Your task to perform on an android device: Show the shopping cart on newegg.com. Search for energizer triple a on newegg.com, select the first entry, add it to the cart, then select checkout. Image 0: 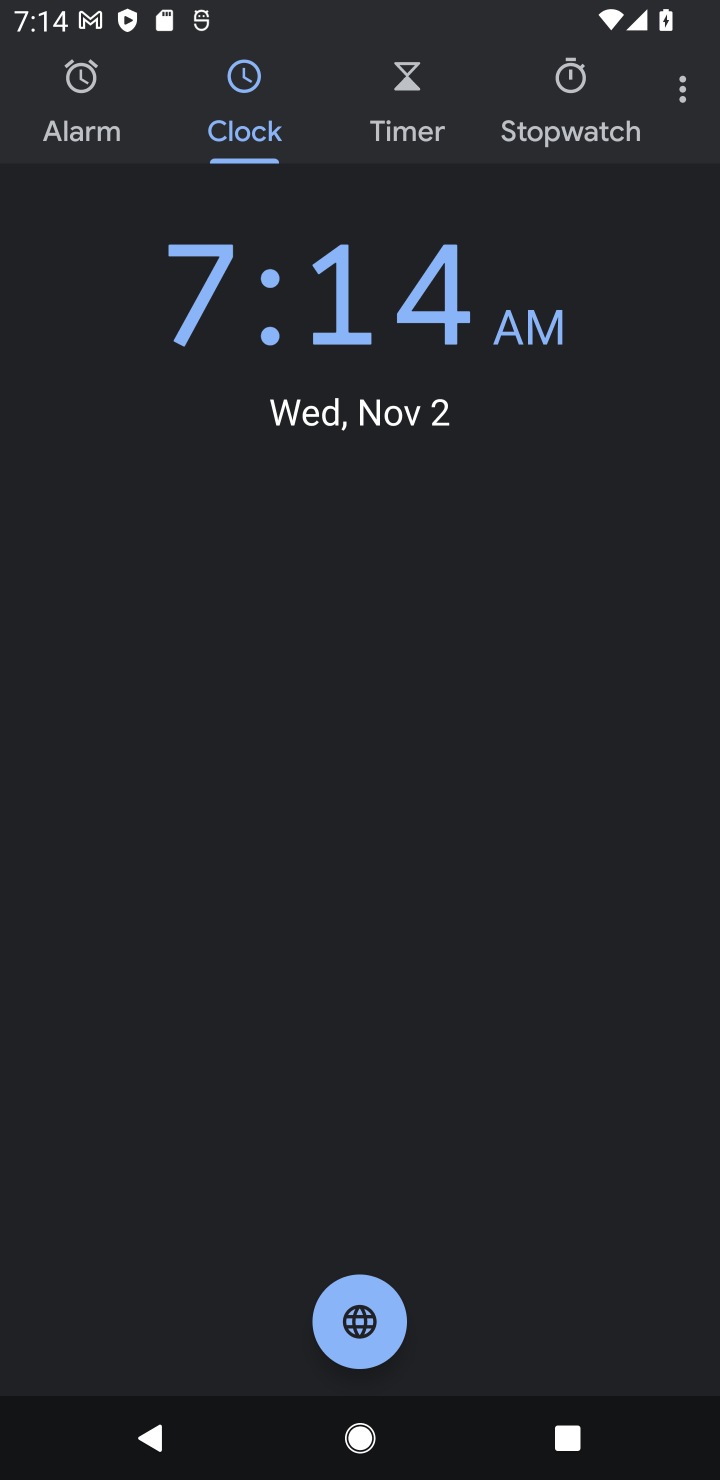
Step 0: press home button
Your task to perform on an android device: Show the shopping cart on newegg.com. Search for energizer triple a on newegg.com, select the first entry, add it to the cart, then select checkout. Image 1: 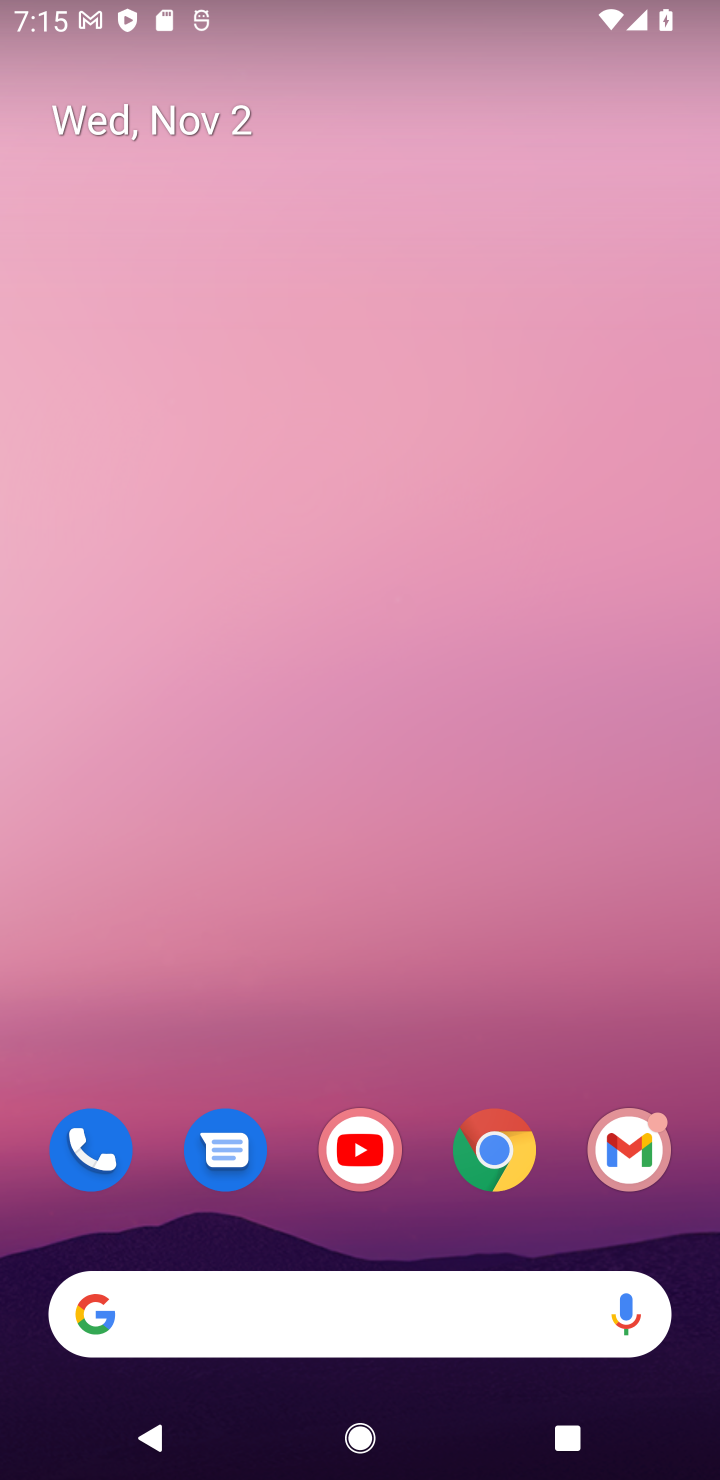
Step 1: click (517, 1176)
Your task to perform on an android device: Show the shopping cart on newegg.com. Search for energizer triple a on newegg.com, select the first entry, add it to the cart, then select checkout. Image 2: 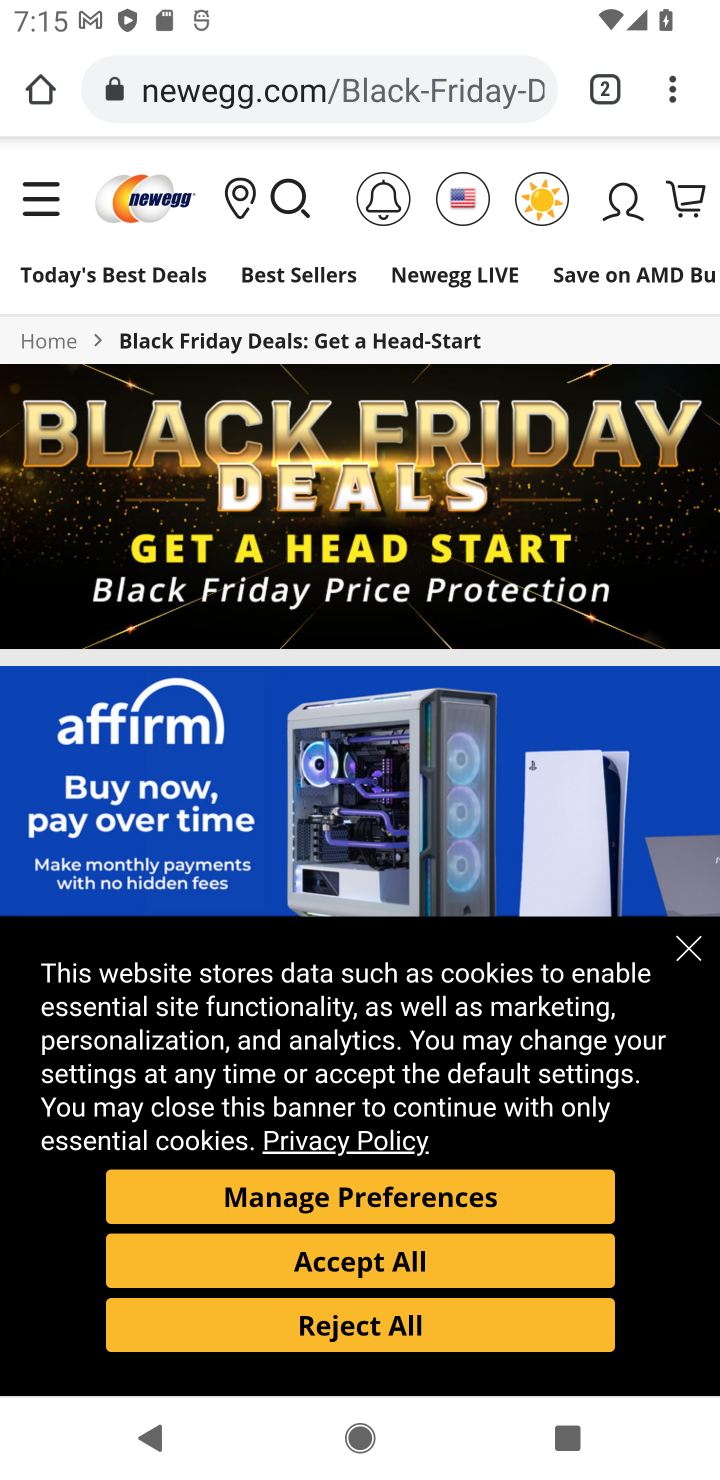
Step 2: click (285, 198)
Your task to perform on an android device: Show the shopping cart on newegg.com. Search for energizer triple a on newegg.com, select the first entry, add it to the cart, then select checkout. Image 3: 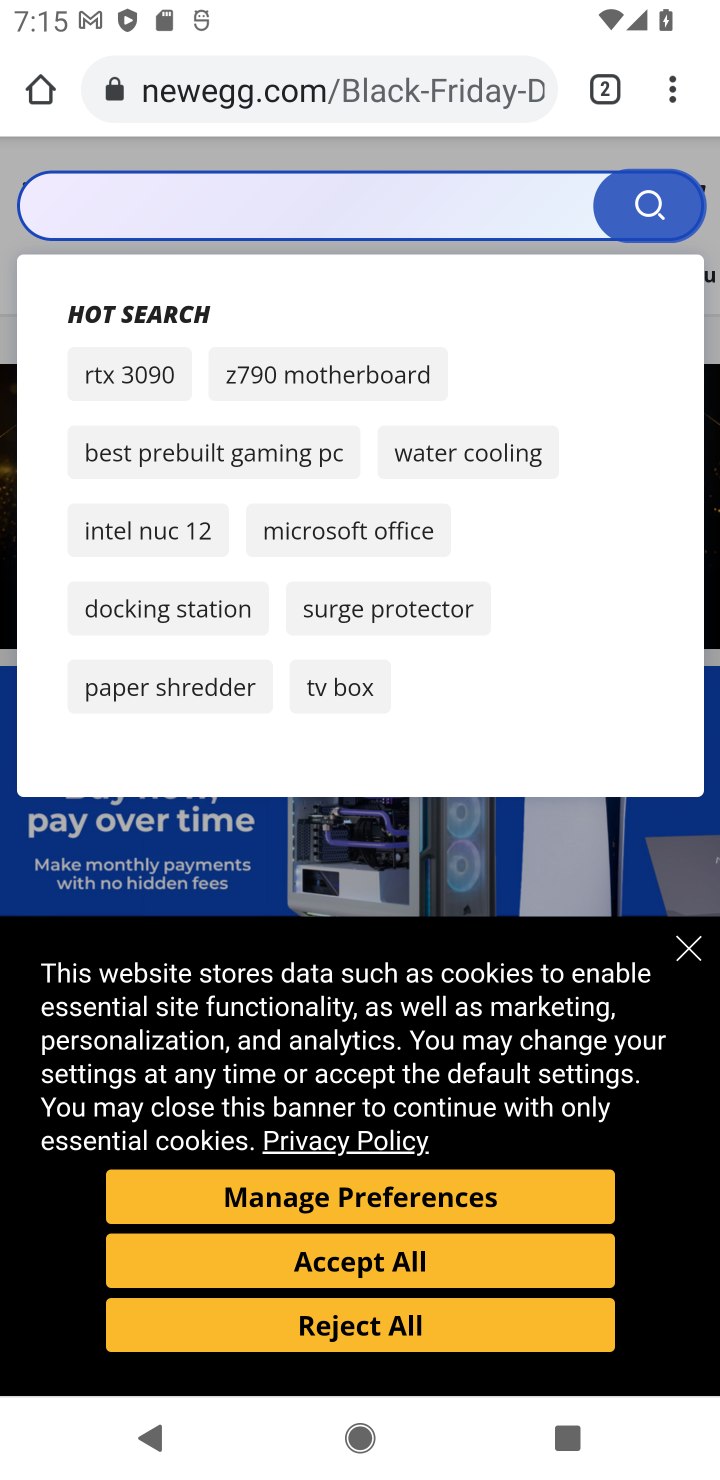
Step 3: type "energizer triple a"
Your task to perform on an android device: Show the shopping cart on newegg.com. Search for energizer triple a on newegg.com, select the first entry, add it to the cart, then select checkout. Image 4: 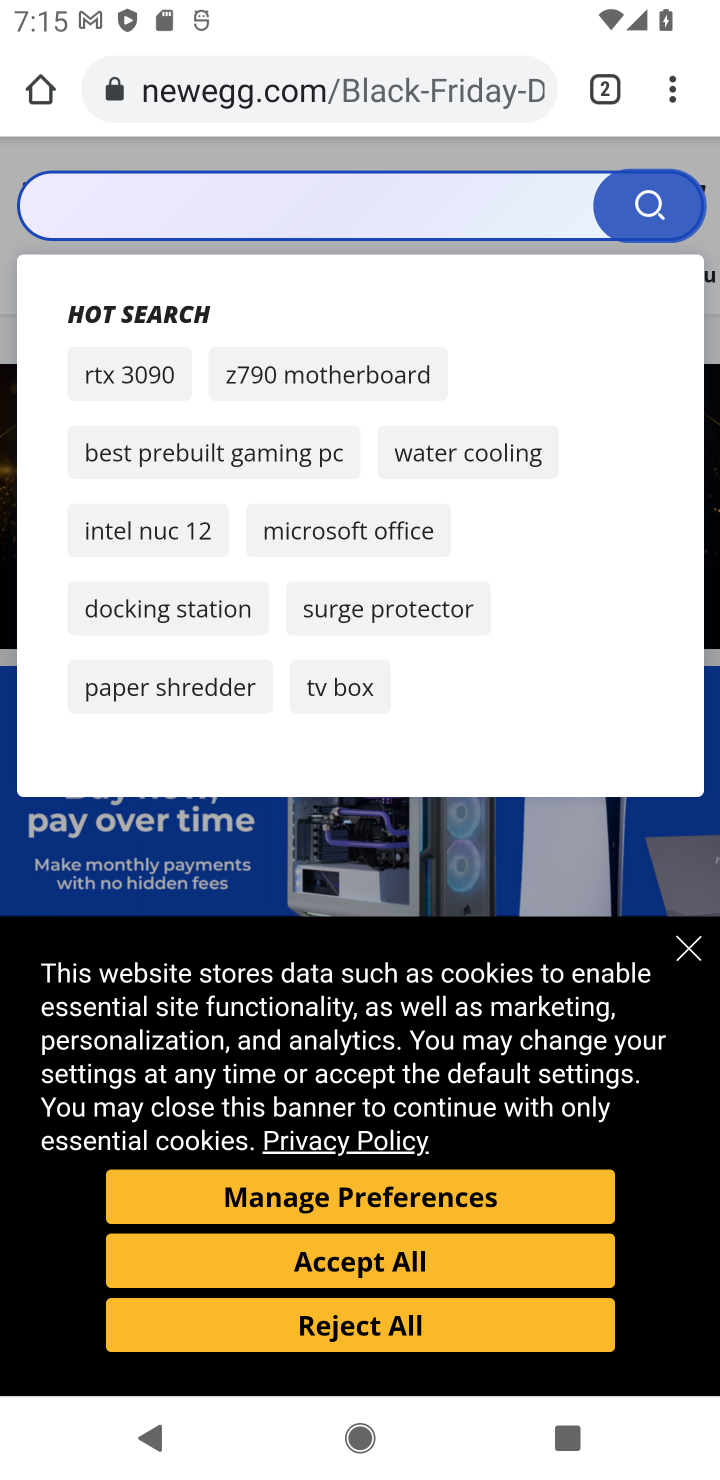
Step 4: click (686, 946)
Your task to perform on an android device: Show the shopping cart on newegg.com. Search for energizer triple a on newegg.com, select the first entry, add it to the cart, then select checkout. Image 5: 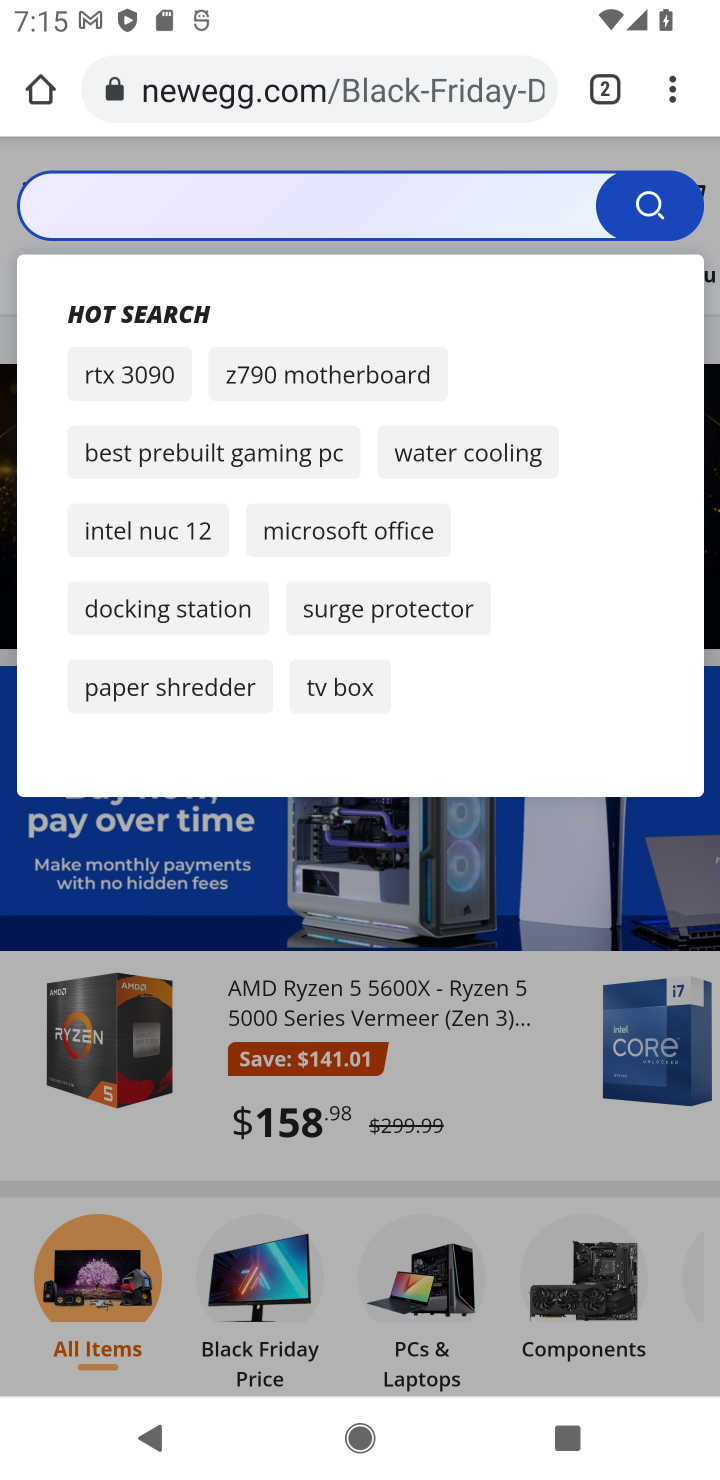
Step 5: click (385, 208)
Your task to perform on an android device: Show the shopping cart on newegg.com. Search for energizer triple a on newegg.com, select the first entry, add it to the cart, then select checkout. Image 6: 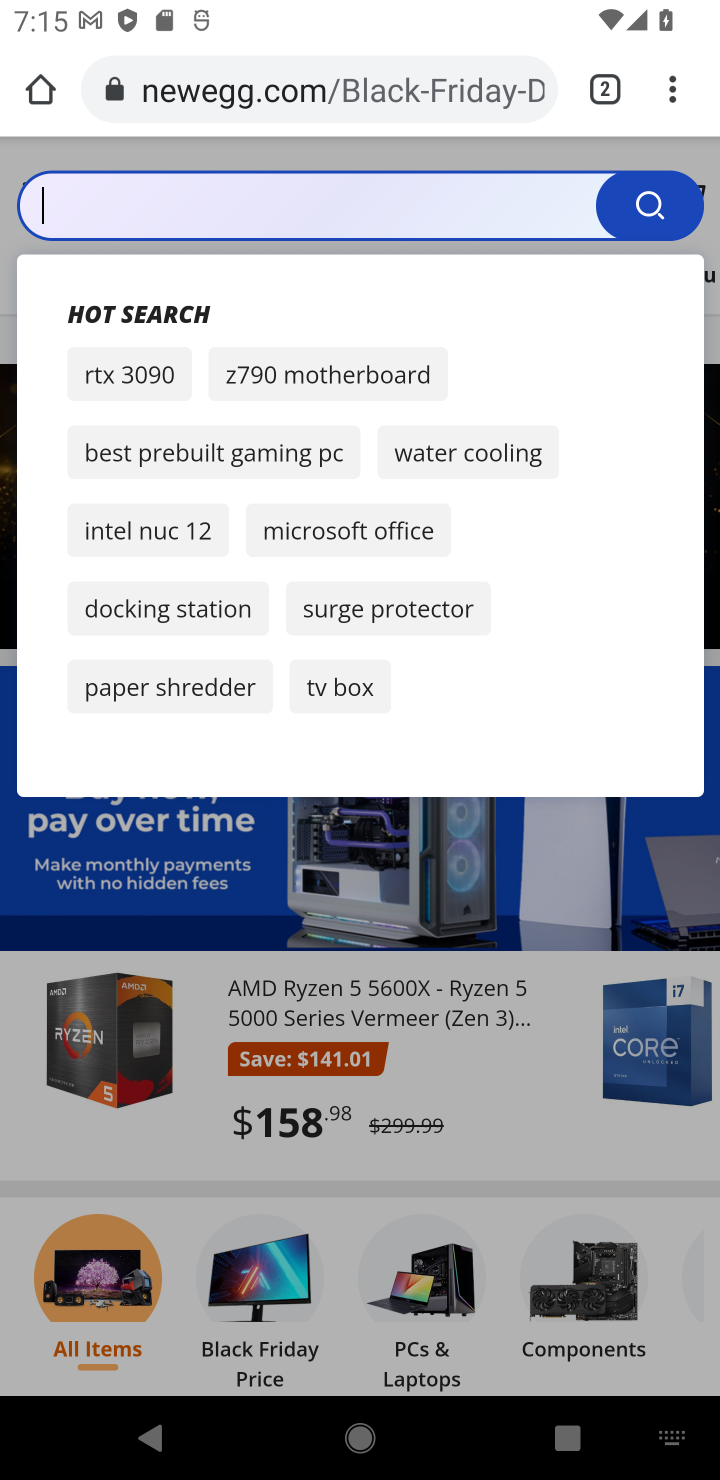
Step 6: type "energizer triple a"
Your task to perform on an android device: Show the shopping cart on newegg.com. Search for energizer triple a on newegg.com, select the first entry, add it to the cart, then select checkout. Image 7: 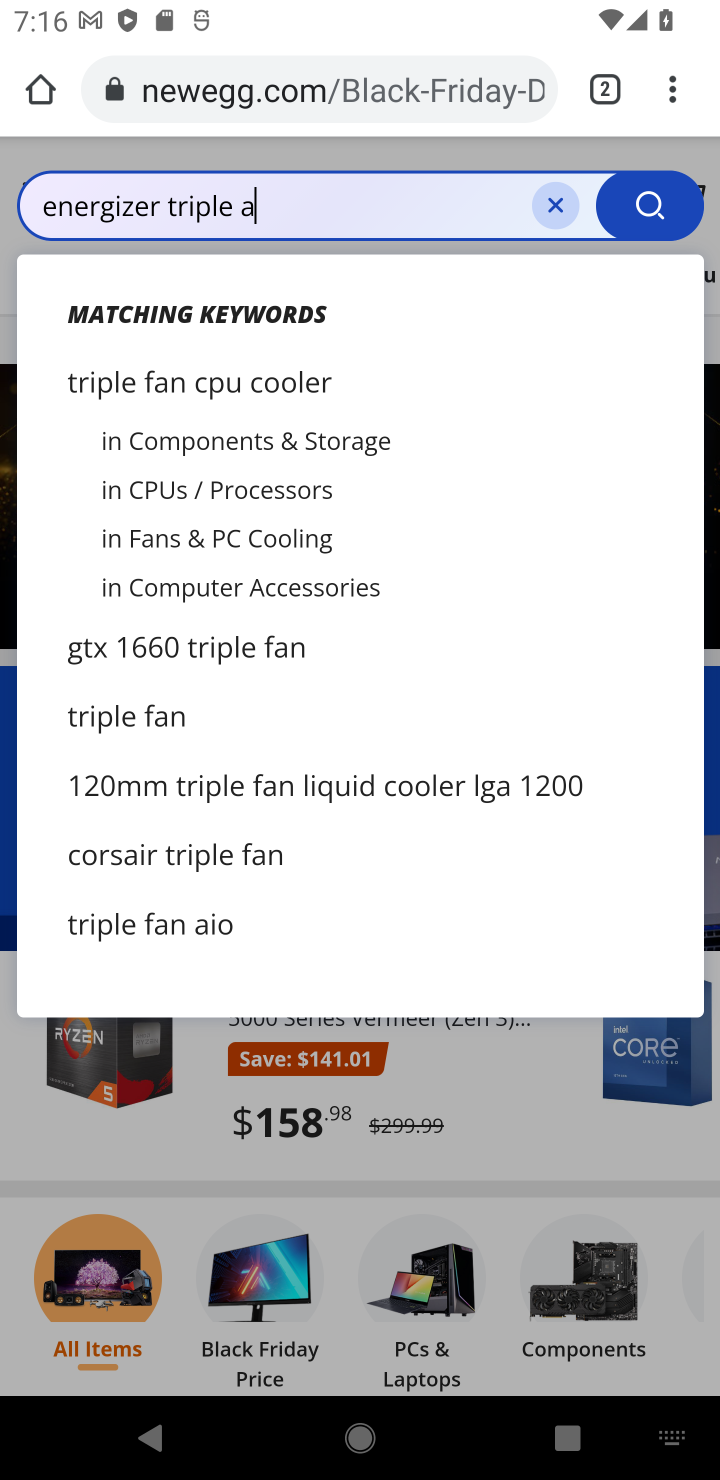
Step 7: type " battery"
Your task to perform on an android device: Show the shopping cart on newegg.com. Search for energizer triple a on newegg.com, select the first entry, add it to the cart, then select checkout. Image 8: 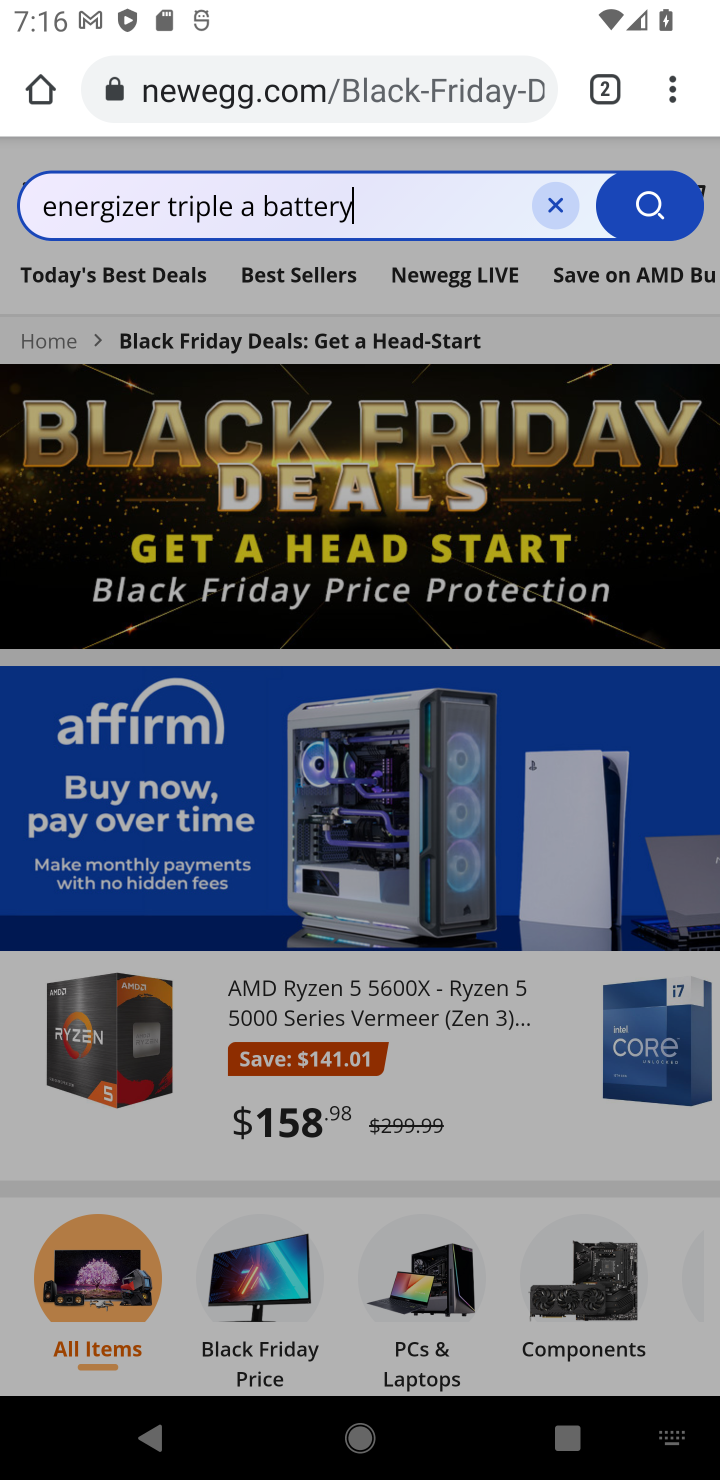
Step 8: click (631, 215)
Your task to perform on an android device: Show the shopping cart on newegg.com. Search for energizer triple a on newegg.com, select the first entry, add it to the cart, then select checkout. Image 9: 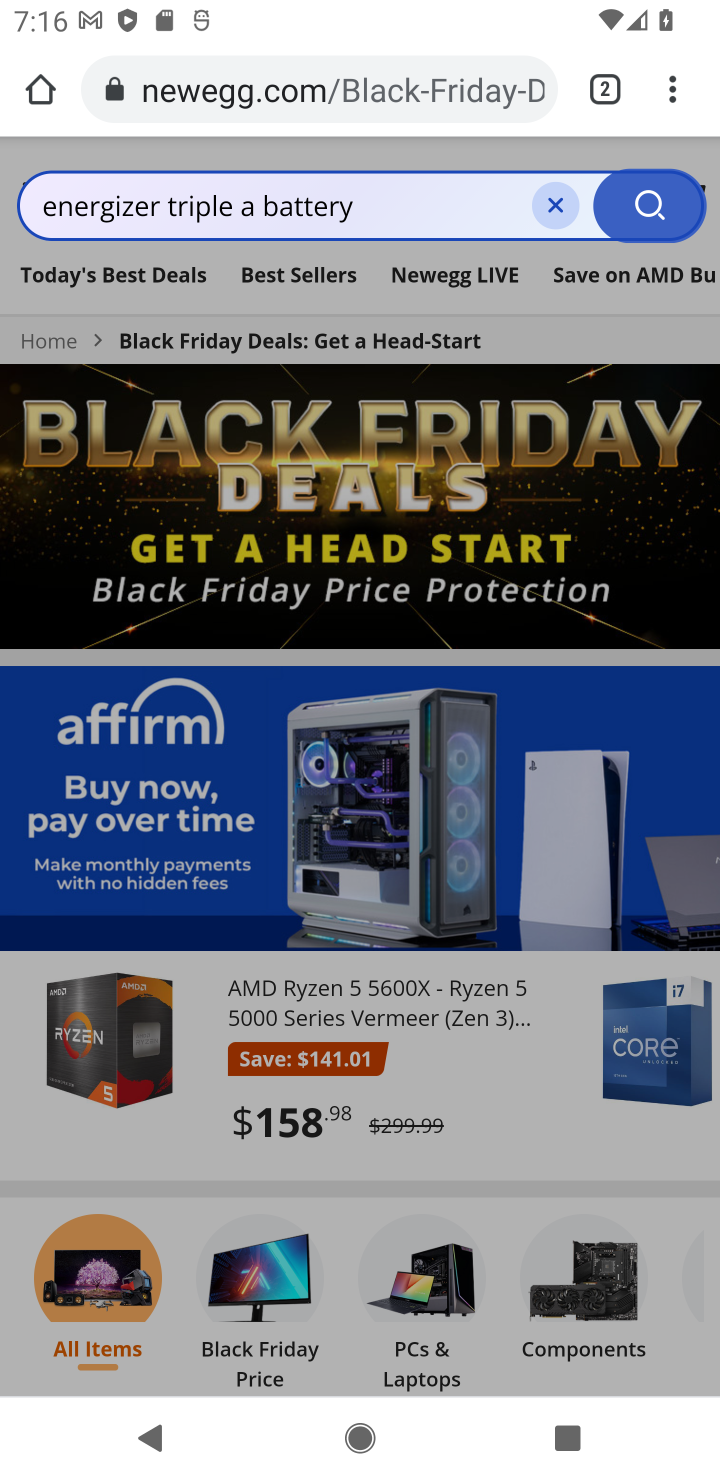
Step 9: click (637, 206)
Your task to perform on an android device: Show the shopping cart on newegg.com. Search for energizer triple a on newegg.com, select the first entry, add it to the cart, then select checkout. Image 10: 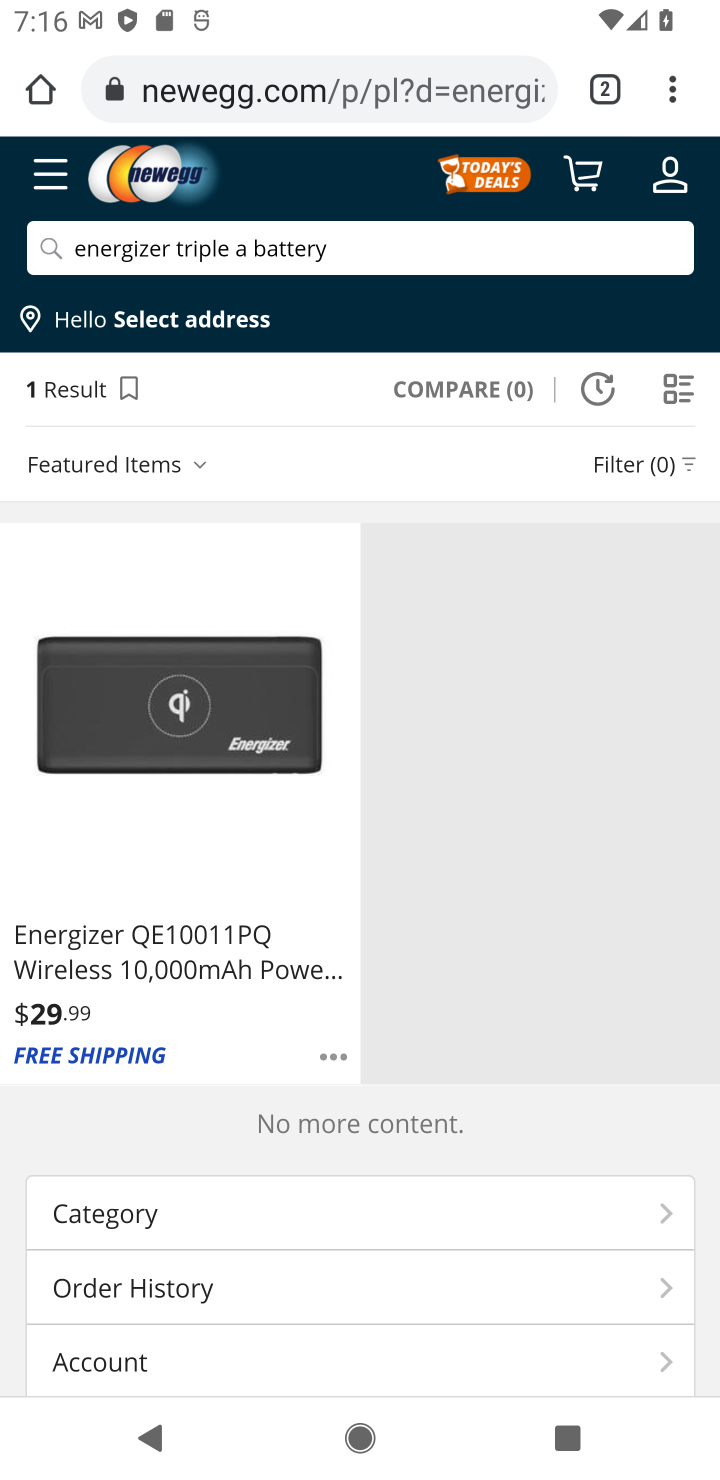
Step 10: click (209, 923)
Your task to perform on an android device: Show the shopping cart on newegg.com. Search for energizer triple a on newegg.com, select the first entry, add it to the cart, then select checkout. Image 11: 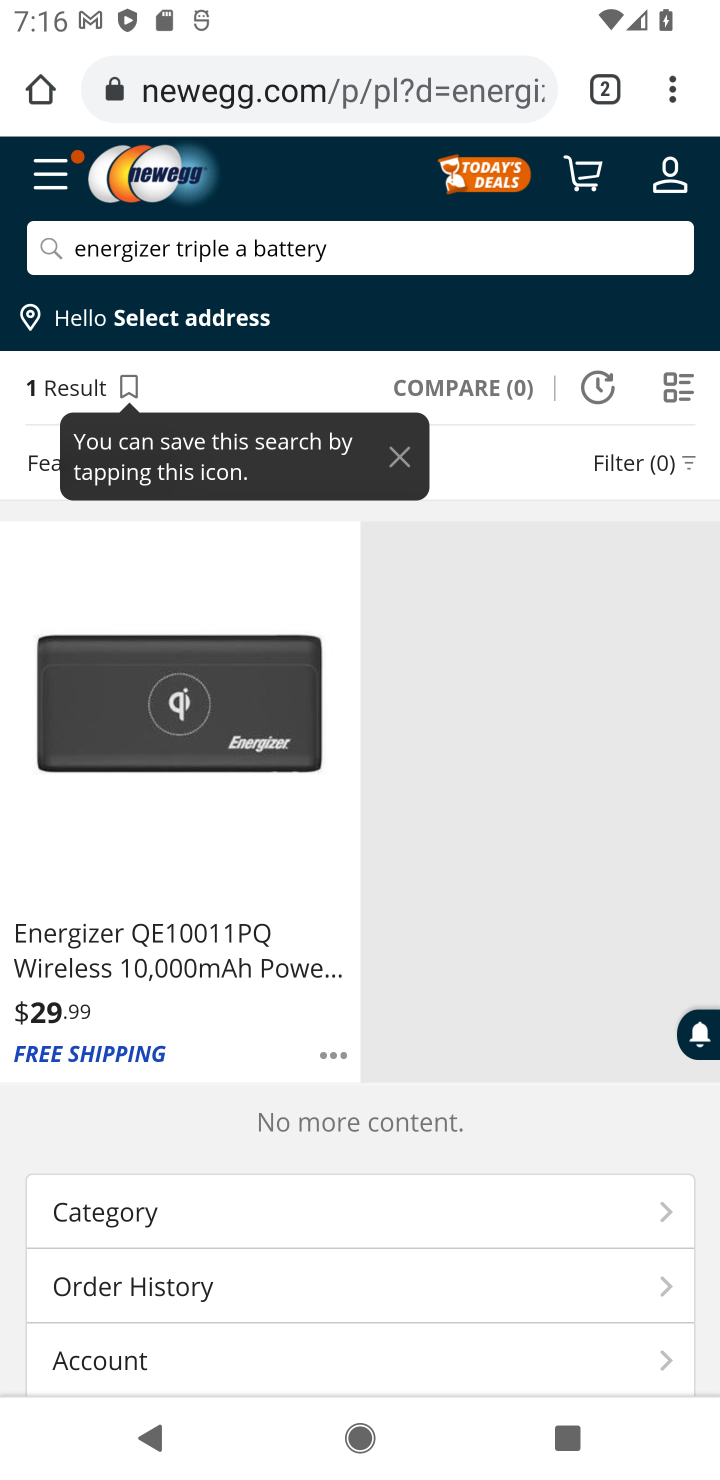
Step 11: click (209, 923)
Your task to perform on an android device: Show the shopping cart on newegg.com. Search for energizer triple a on newegg.com, select the first entry, add it to the cart, then select checkout. Image 12: 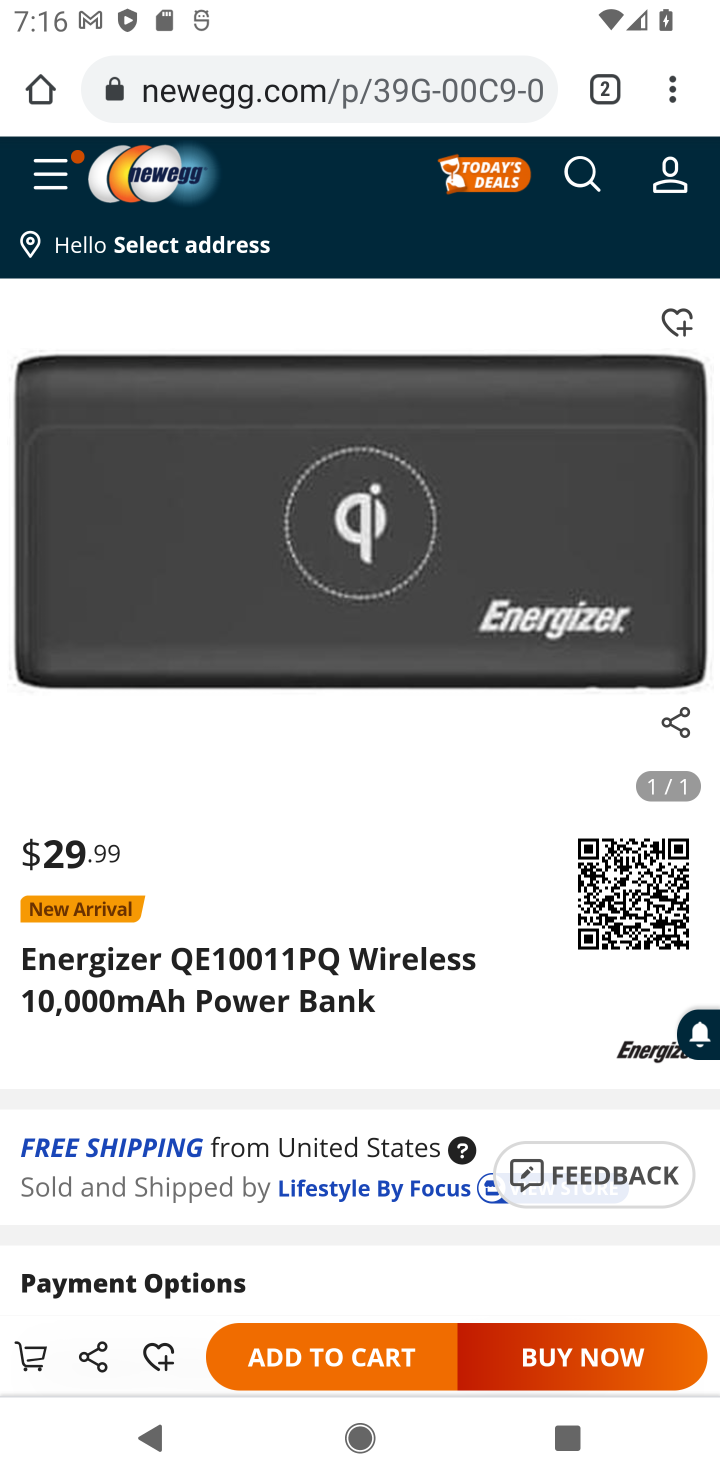
Step 12: click (335, 1344)
Your task to perform on an android device: Show the shopping cart on newegg.com. Search for energizer triple a on newegg.com, select the first entry, add it to the cart, then select checkout. Image 13: 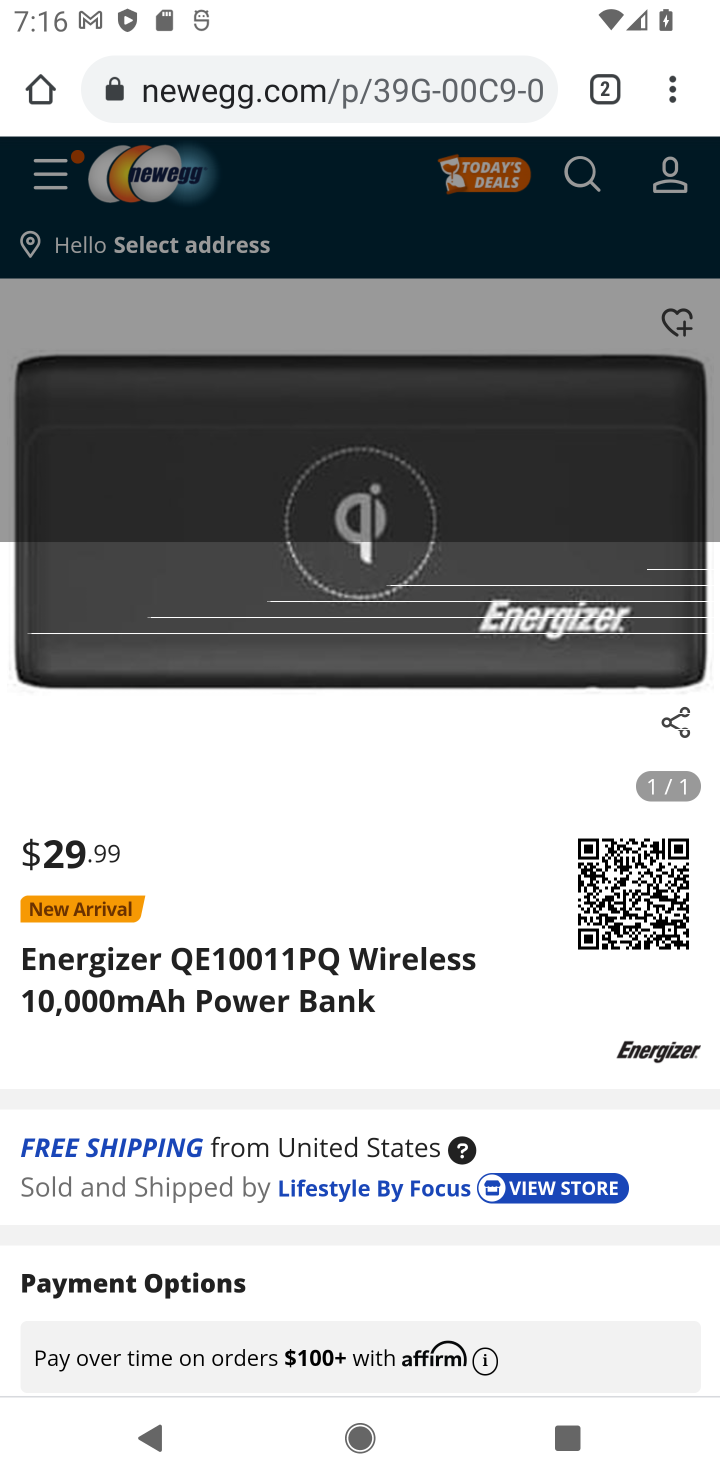
Step 13: task complete